Your task to perform on an android device: set the timer Image 0: 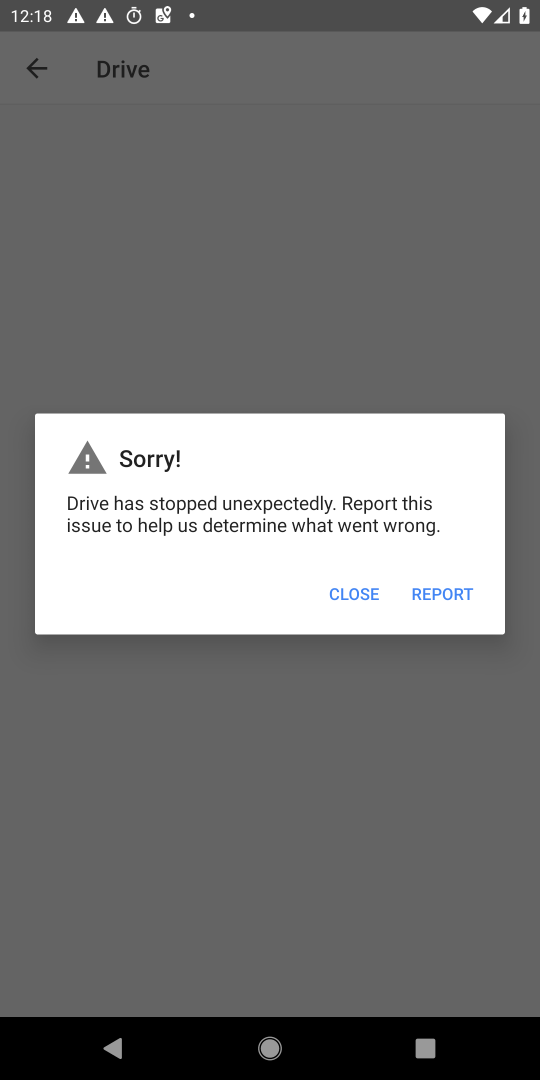
Step 0: press home button
Your task to perform on an android device: set the timer Image 1: 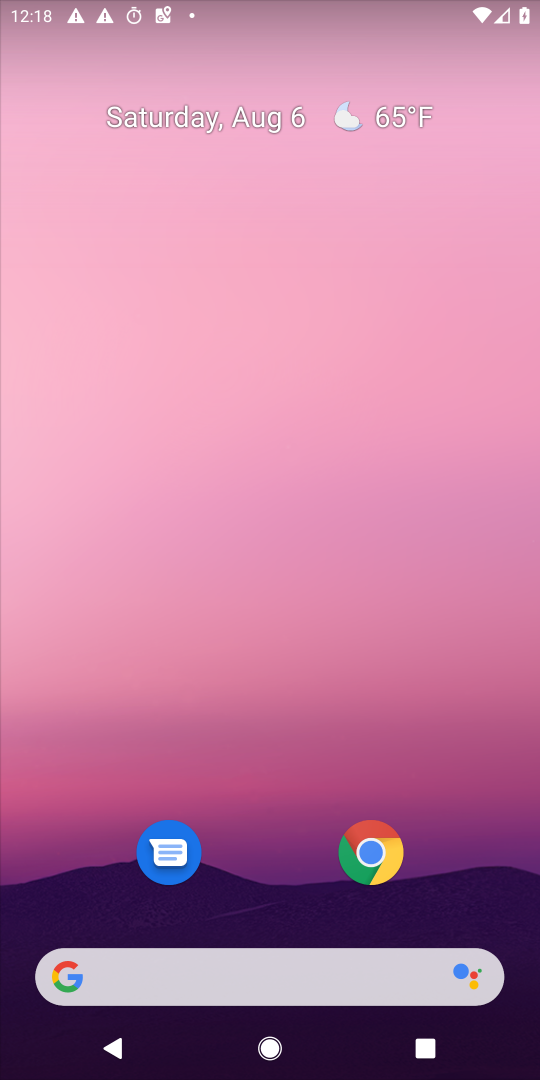
Step 1: drag from (330, 997) to (371, 306)
Your task to perform on an android device: set the timer Image 2: 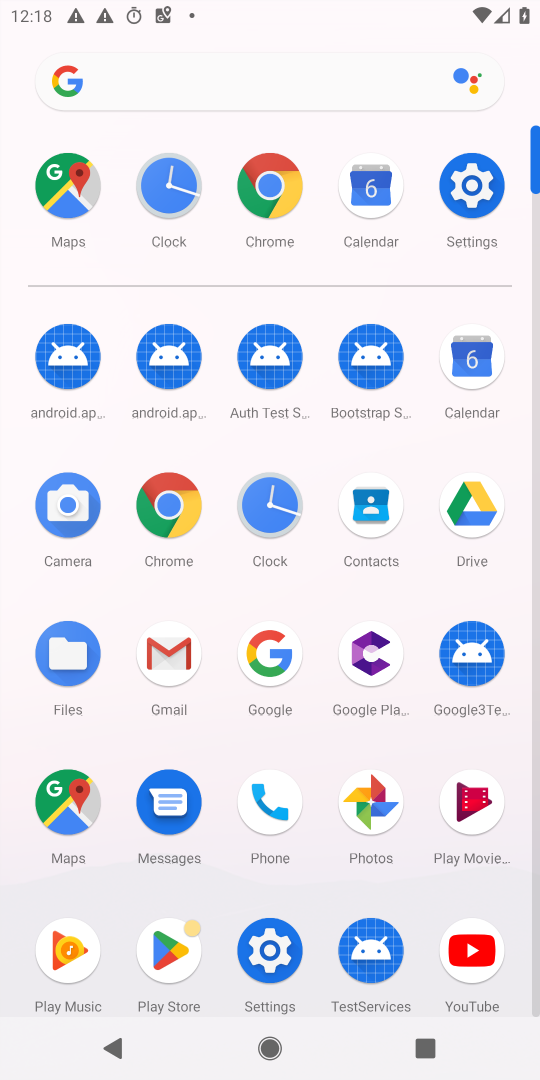
Step 2: click (263, 525)
Your task to perform on an android device: set the timer Image 3: 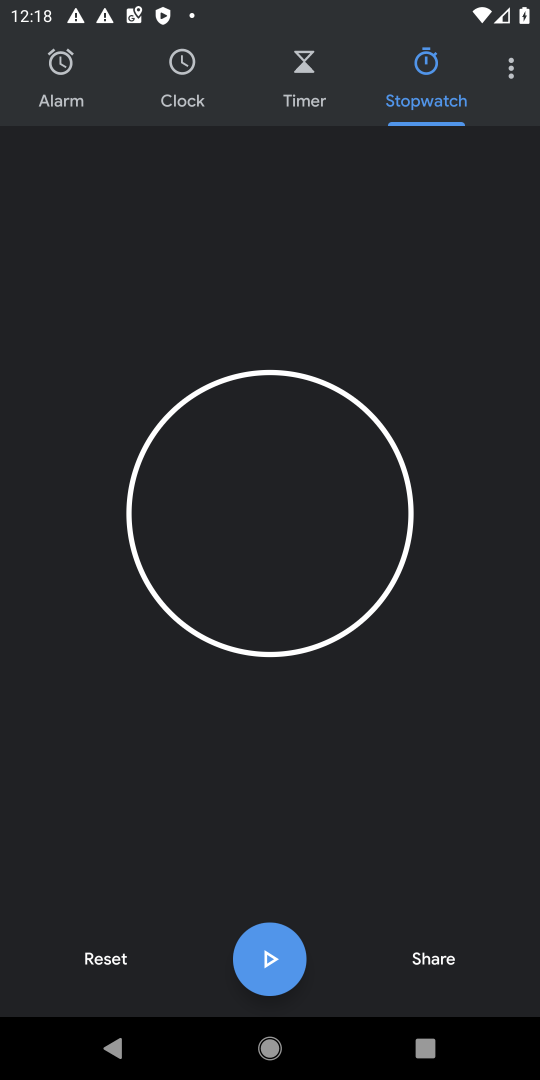
Step 3: click (317, 96)
Your task to perform on an android device: set the timer Image 4: 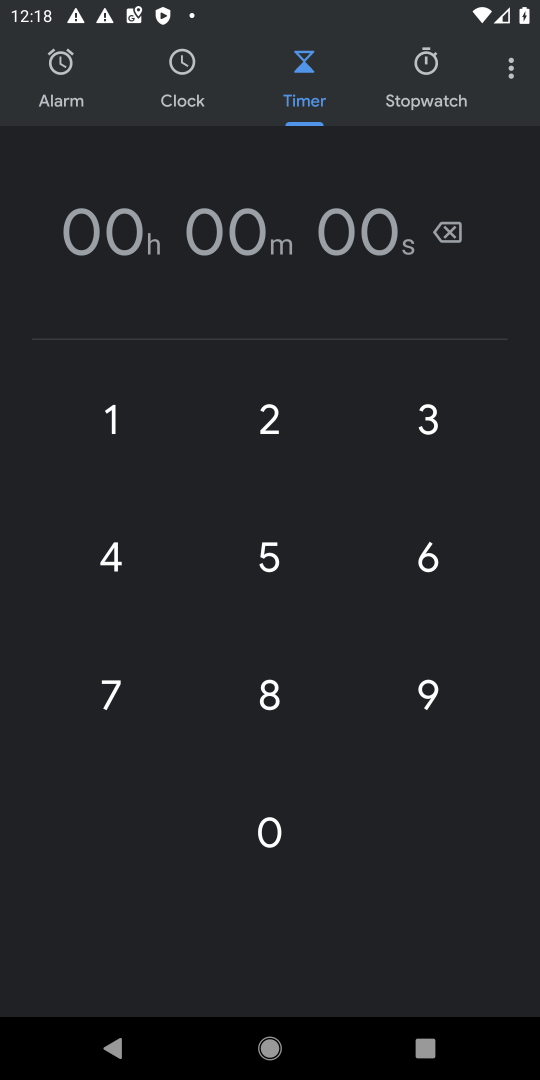
Step 4: click (274, 433)
Your task to perform on an android device: set the timer Image 5: 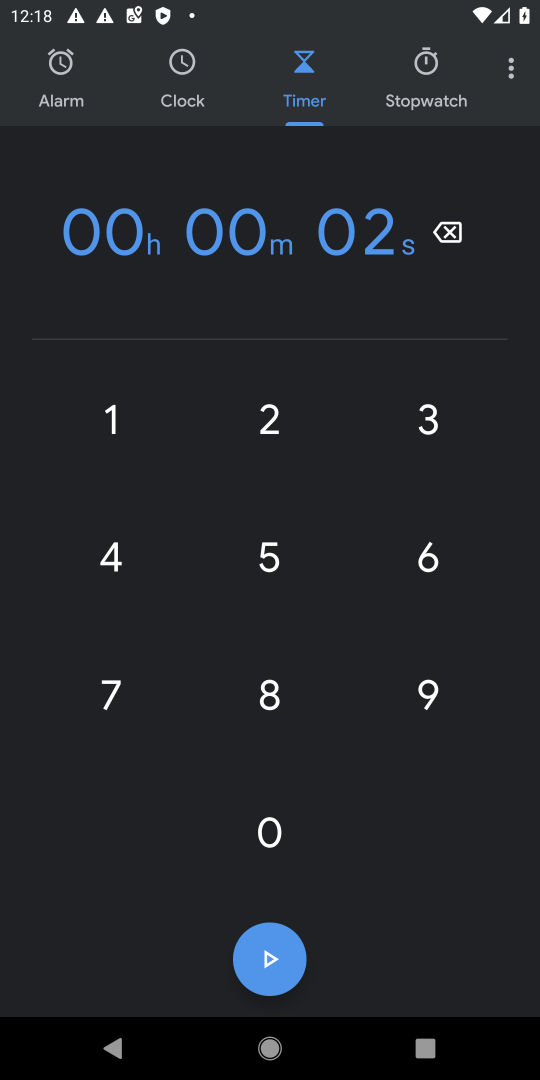
Step 5: click (144, 424)
Your task to perform on an android device: set the timer Image 6: 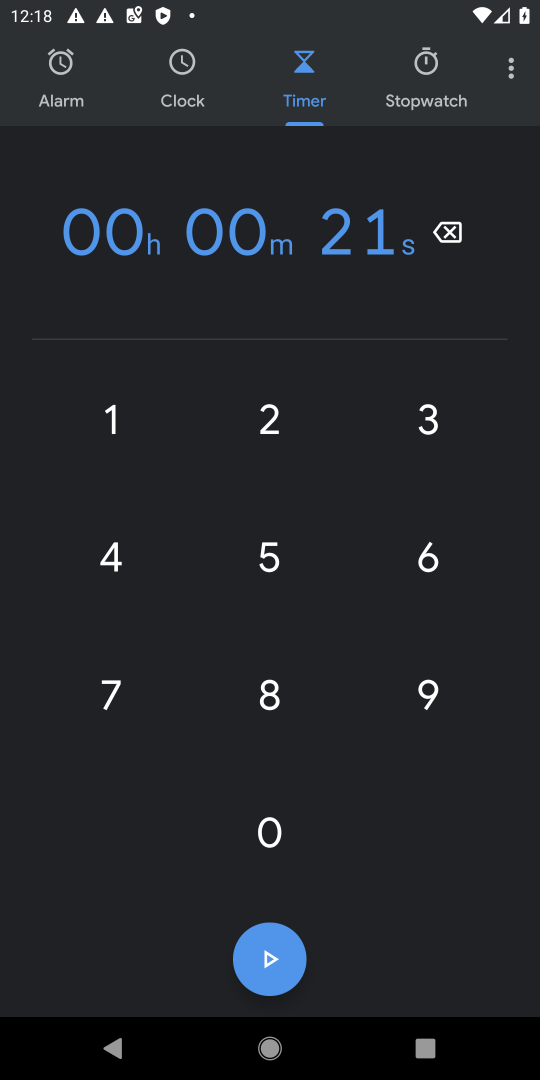
Step 6: click (144, 576)
Your task to perform on an android device: set the timer Image 7: 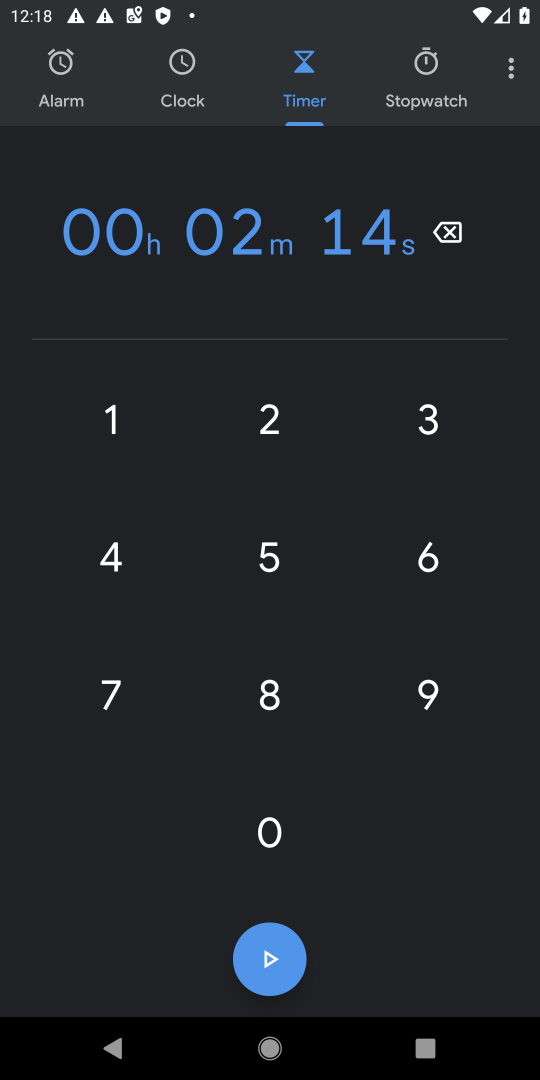
Step 7: click (247, 565)
Your task to perform on an android device: set the timer Image 8: 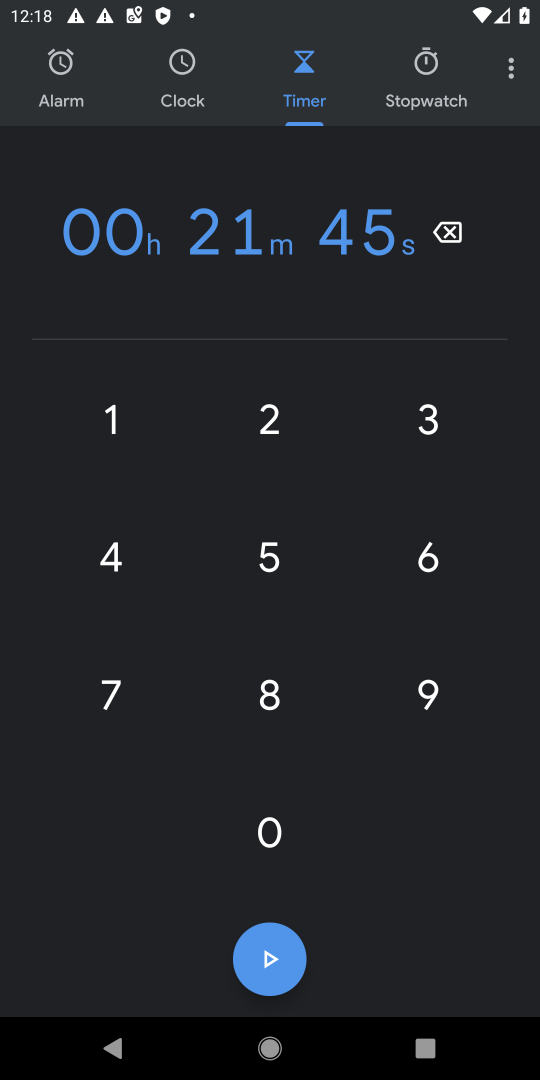
Step 8: click (282, 698)
Your task to perform on an android device: set the timer Image 9: 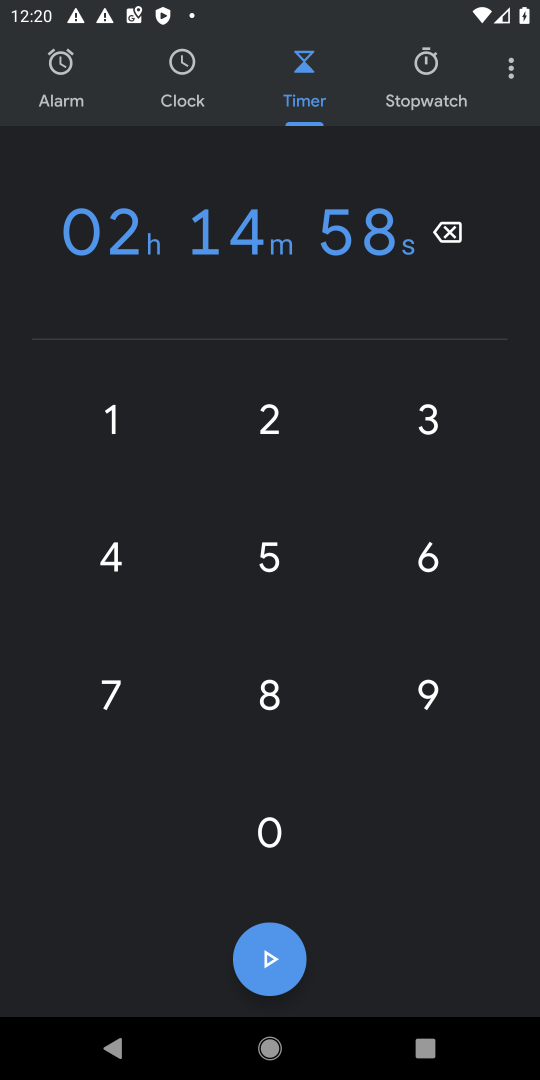
Step 9: task complete